Your task to perform on an android device: change notification settings in the gmail app Image 0: 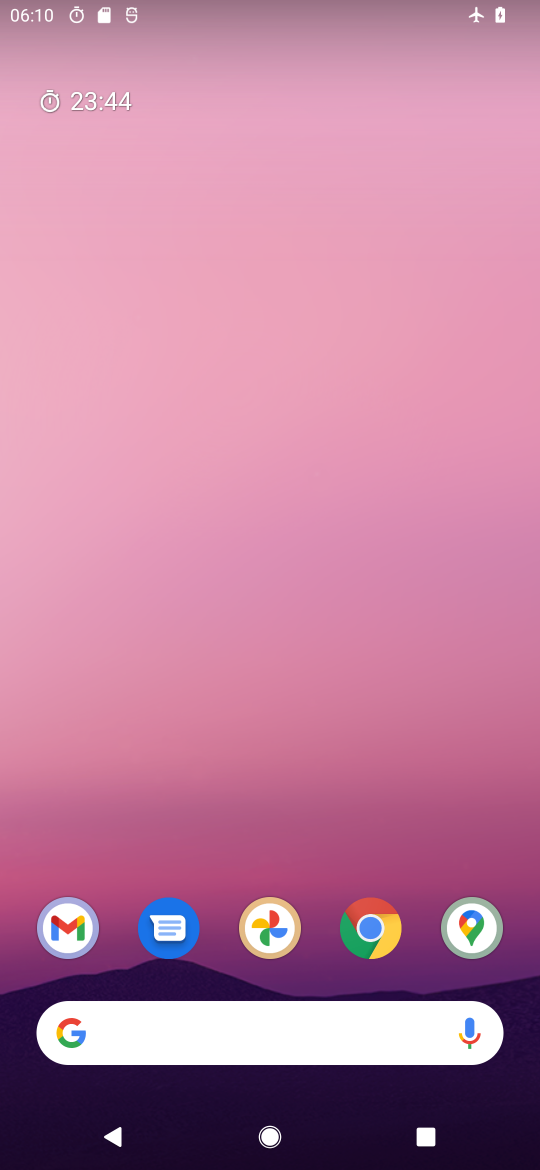
Step 0: click (44, 927)
Your task to perform on an android device: change notification settings in the gmail app Image 1: 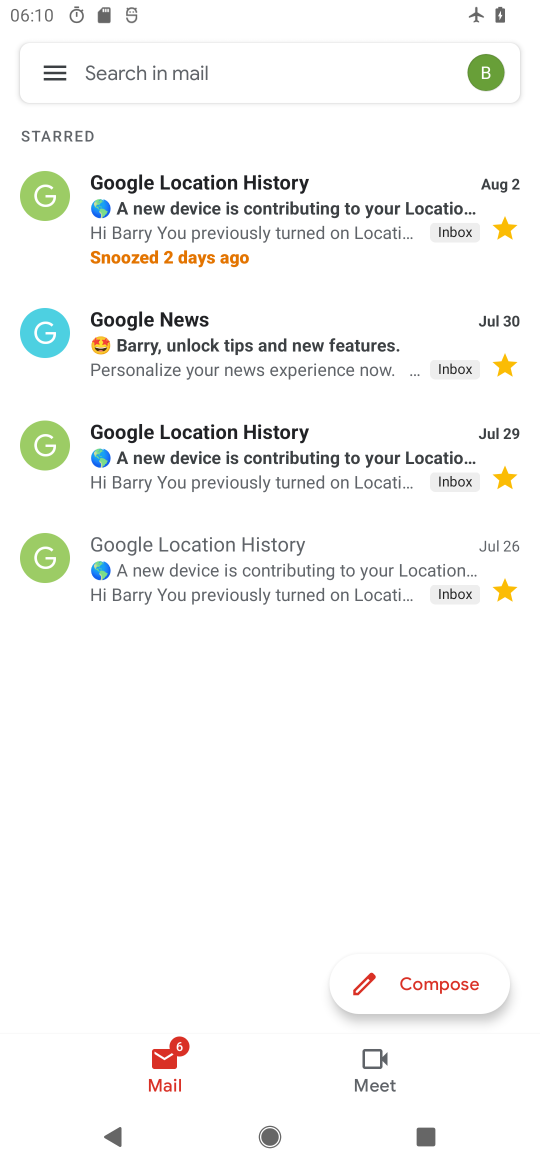
Step 1: click (56, 66)
Your task to perform on an android device: change notification settings in the gmail app Image 2: 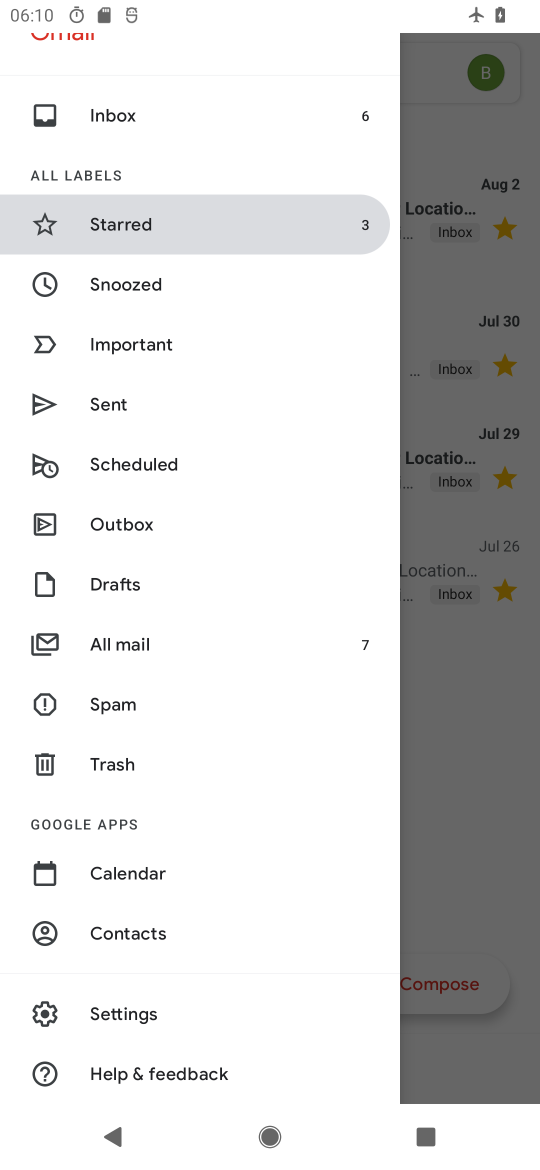
Step 2: drag from (196, 985) to (208, 599)
Your task to perform on an android device: change notification settings in the gmail app Image 3: 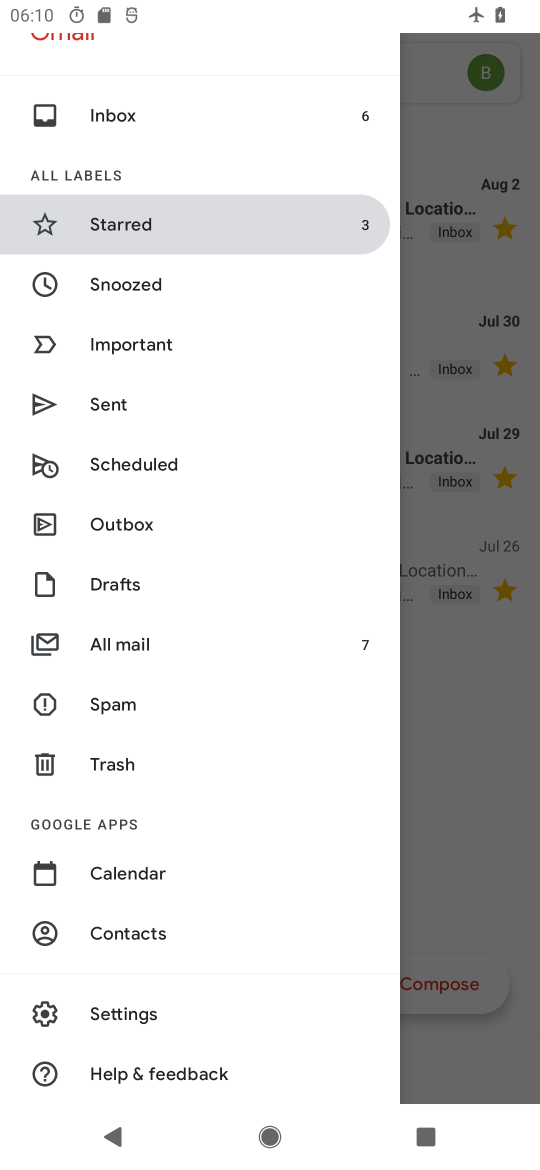
Step 3: click (120, 1014)
Your task to perform on an android device: change notification settings in the gmail app Image 4: 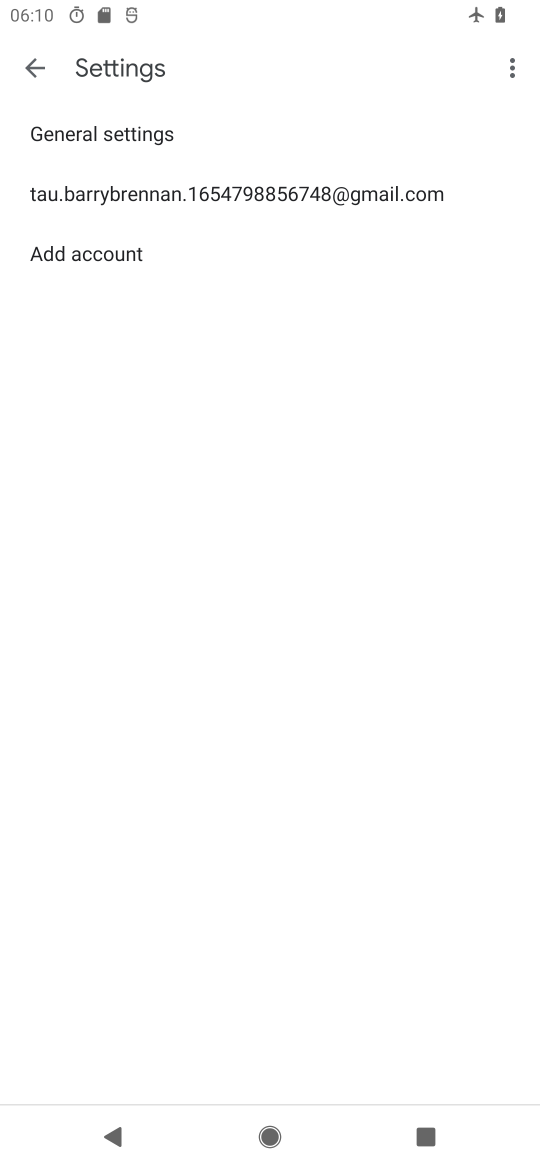
Step 4: click (143, 140)
Your task to perform on an android device: change notification settings in the gmail app Image 5: 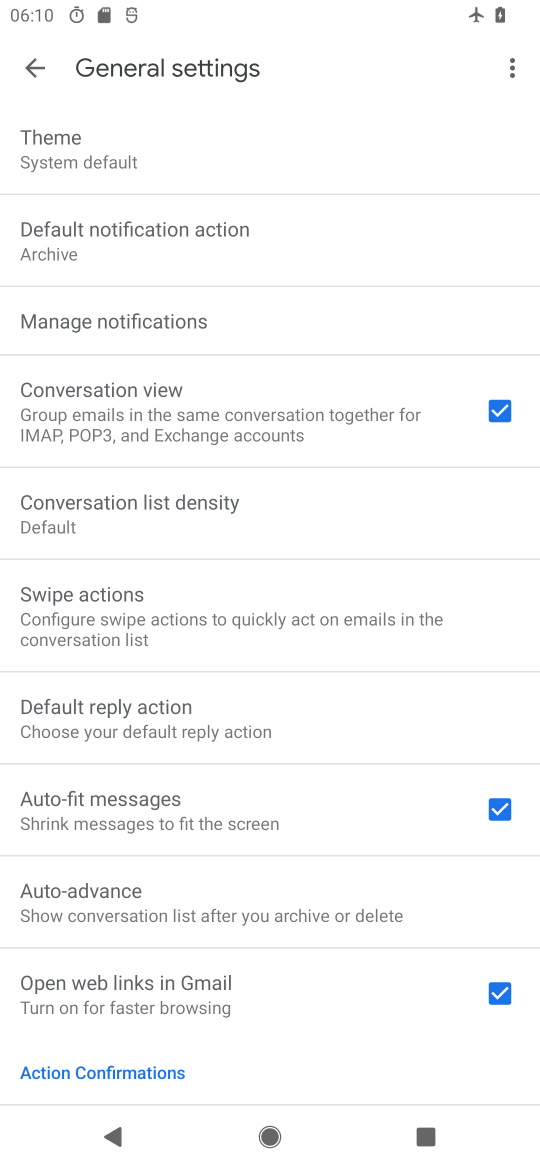
Step 5: click (209, 329)
Your task to perform on an android device: change notification settings in the gmail app Image 6: 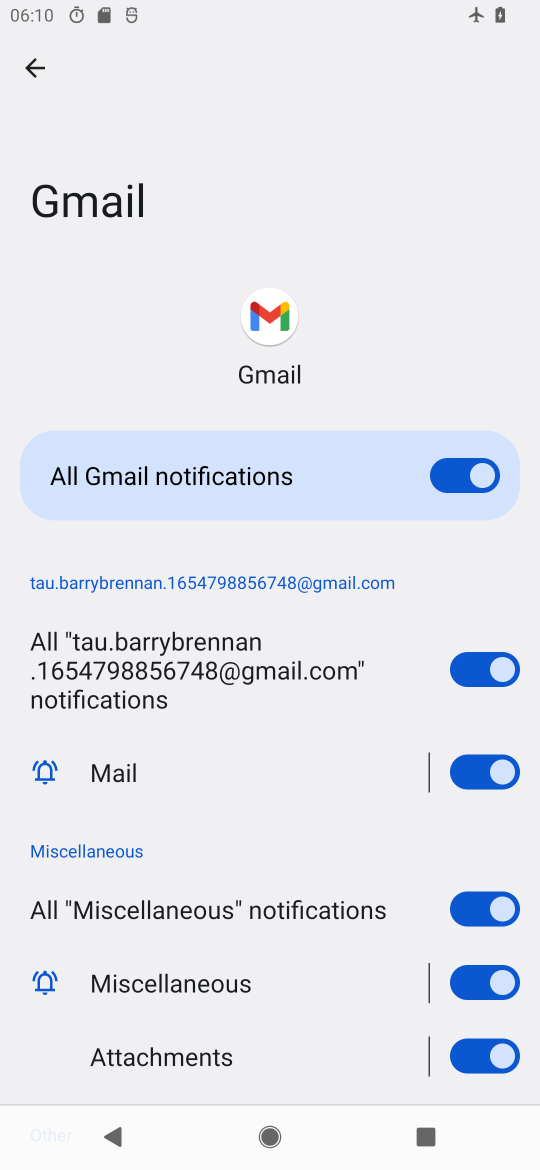
Step 6: click (406, 478)
Your task to perform on an android device: change notification settings in the gmail app Image 7: 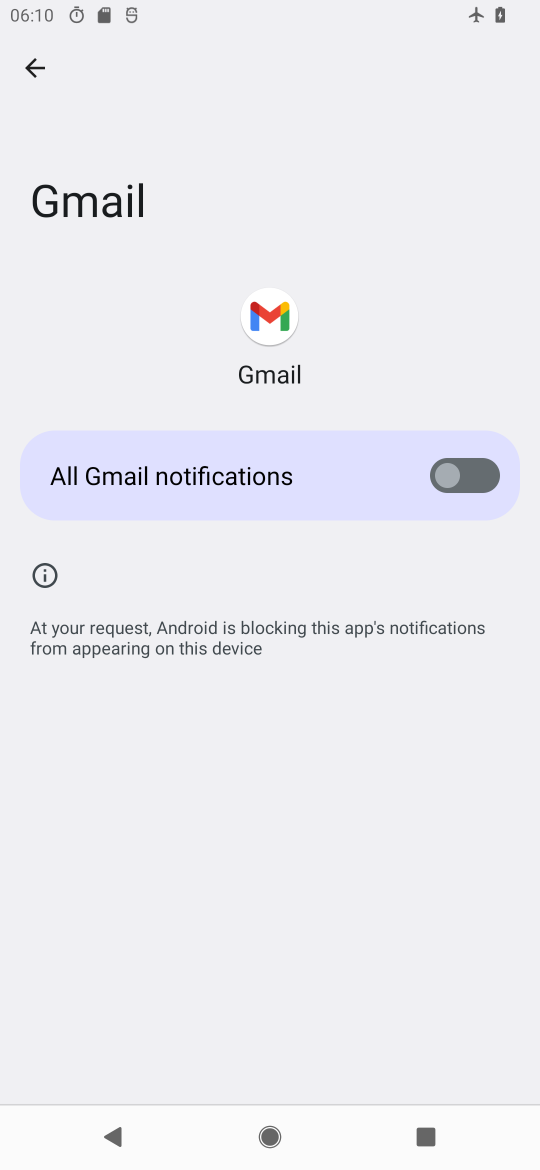
Step 7: task complete